Your task to perform on an android device: Go to display settings Image 0: 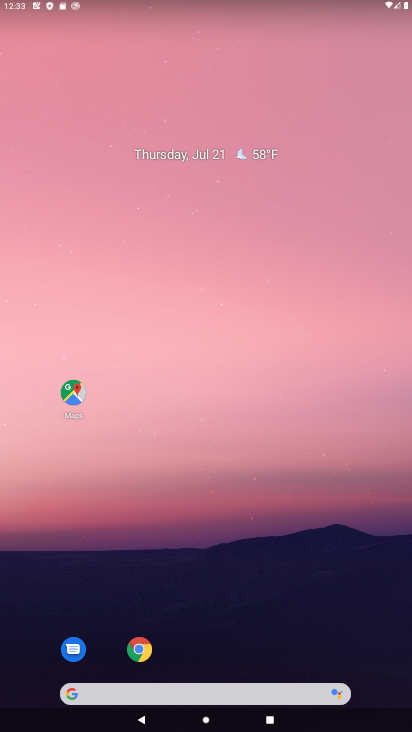
Step 0: drag from (391, 650) to (328, 89)
Your task to perform on an android device: Go to display settings Image 1: 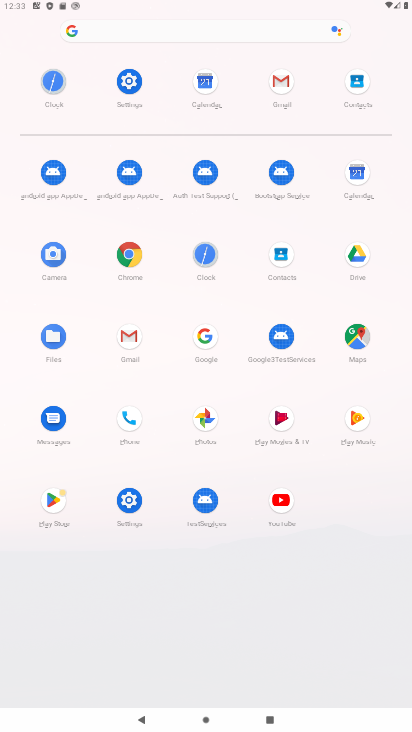
Step 1: click (130, 498)
Your task to perform on an android device: Go to display settings Image 2: 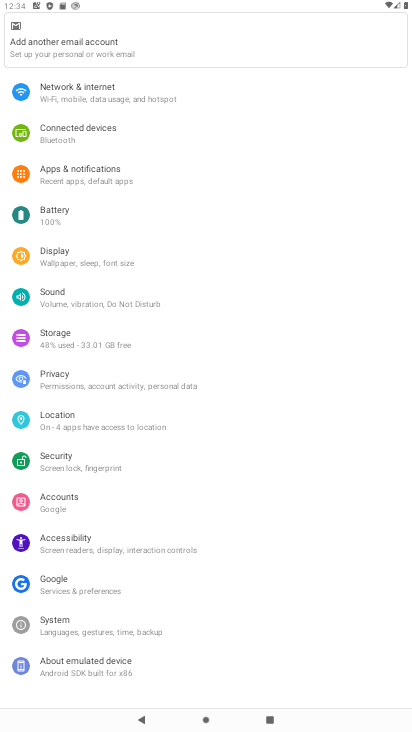
Step 2: click (66, 251)
Your task to perform on an android device: Go to display settings Image 3: 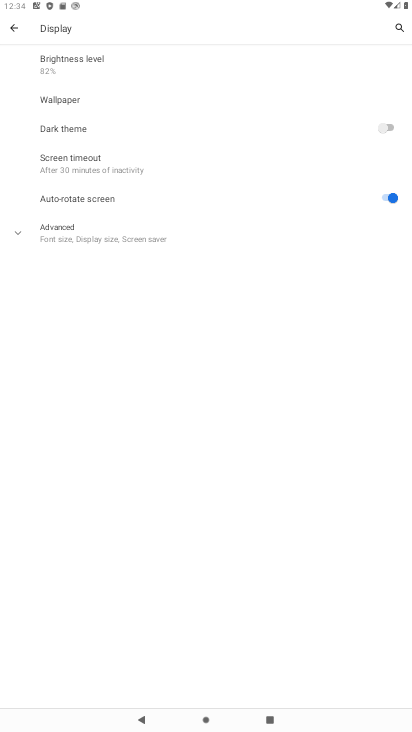
Step 3: click (43, 235)
Your task to perform on an android device: Go to display settings Image 4: 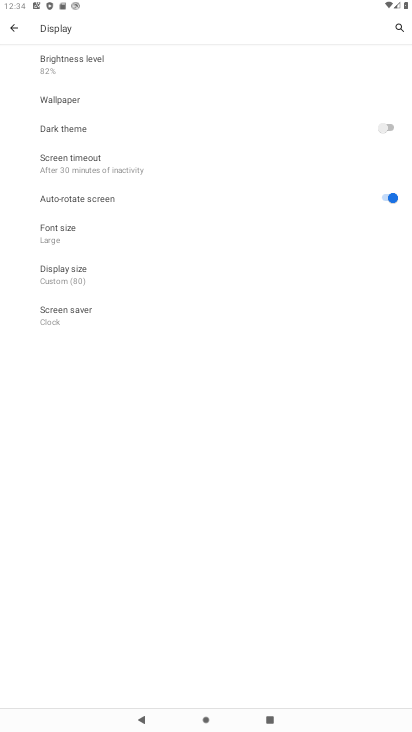
Step 4: task complete